Your task to perform on an android device: find snoozed emails in the gmail app Image 0: 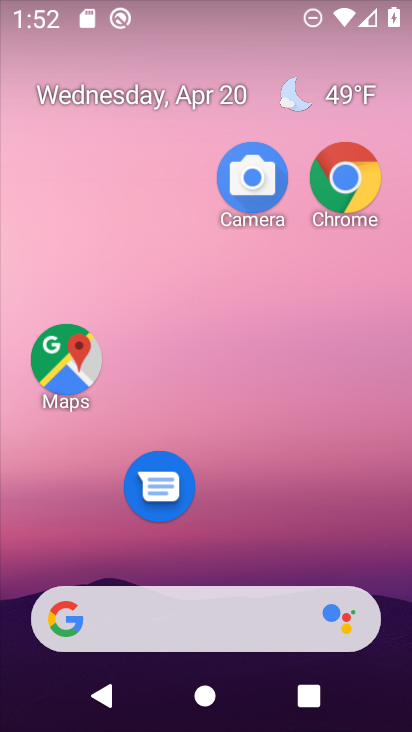
Step 0: drag from (291, 639) to (222, 151)
Your task to perform on an android device: find snoozed emails in the gmail app Image 1: 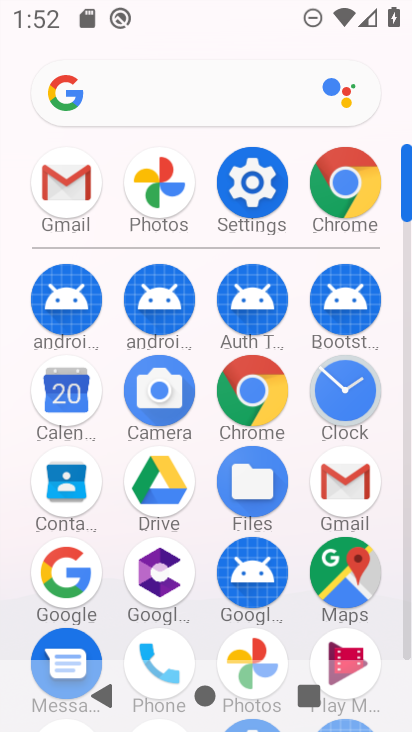
Step 1: click (341, 477)
Your task to perform on an android device: find snoozed emails in the gmail app Image 2: 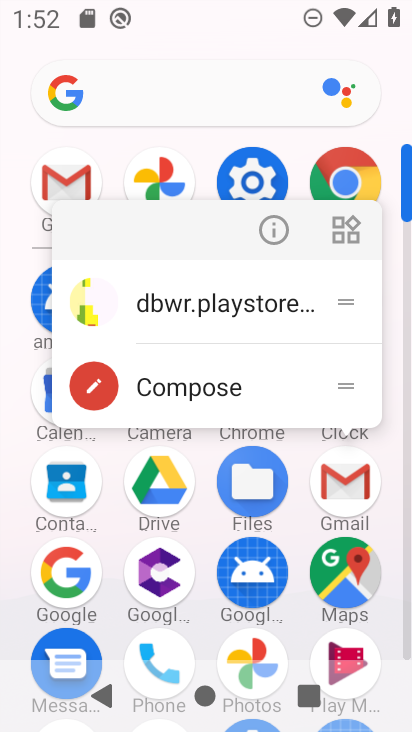
Step 2: click (342, 489)
Your task to perform on an android device: find snoozed emails in the gmail app Image 3: 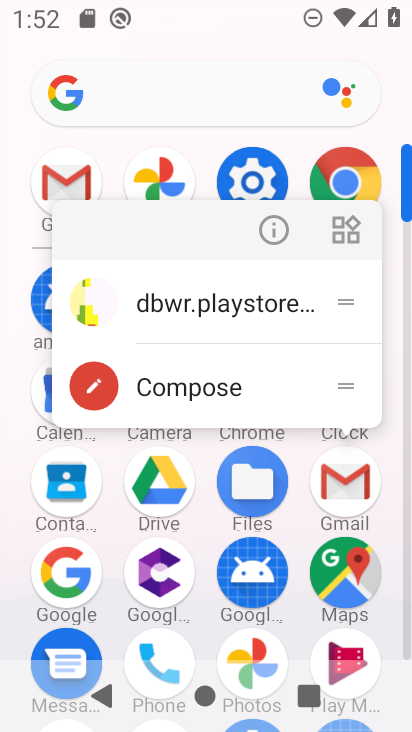
Step 3: click (339, 489)
Your task to perform on an android device: find snoozed emails in the gmail app Image 4: 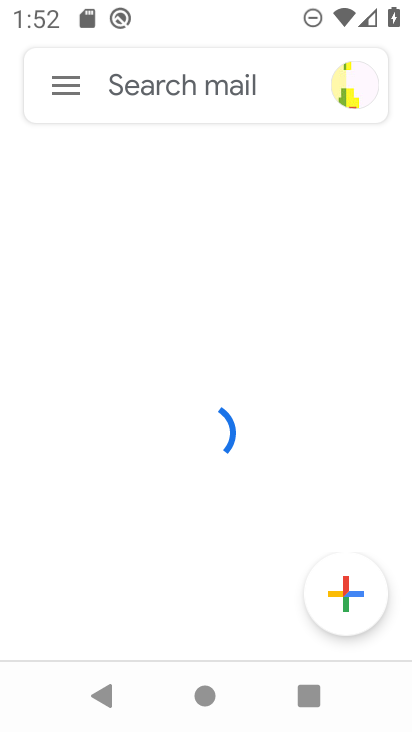
Step 4: click (71, 96)
Your task to perform on an android device: find snoozed emails in the gmail app Image 5: 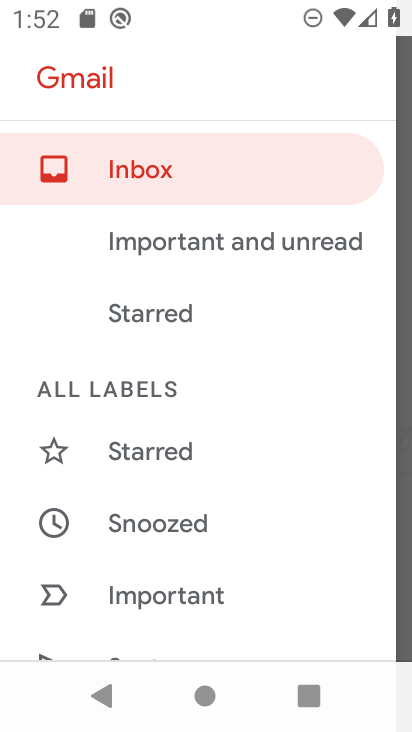
Step 5: click (132, 528)
Your task to perform on an android device: find snoozed emails in the gmail app Image 6: 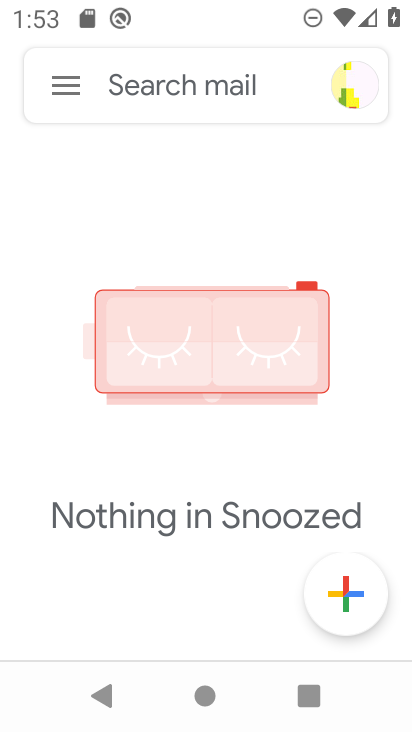
Step 6: task complete